Your task to perform on an android device: Open the downloads Image 0: 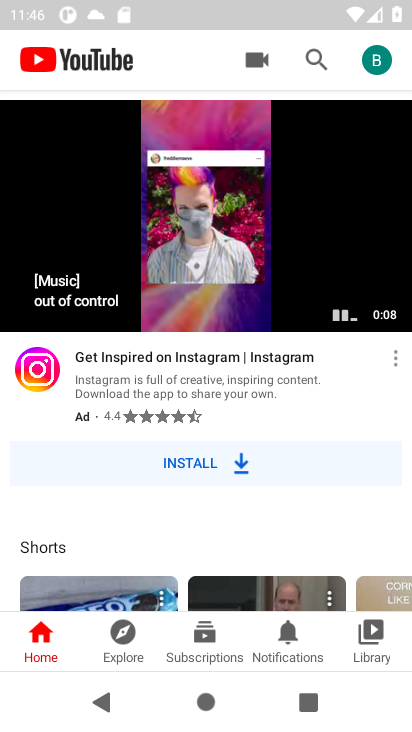
Step 0: press home button
Your task to perform on an android device: Open the downloads Image 1: 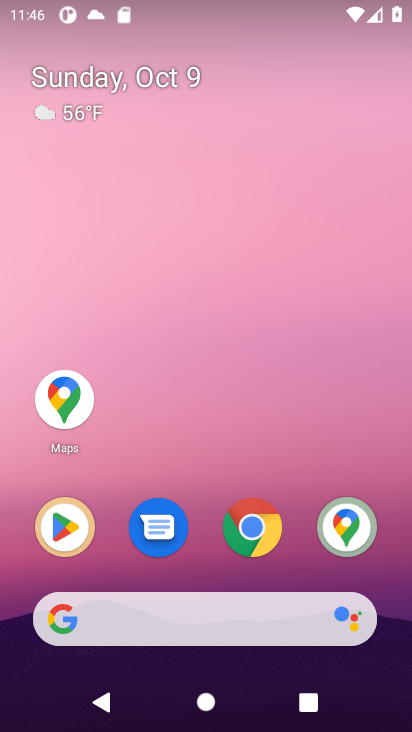
Step 1: drag from (198, 563) to (220, 60)
Your task to perform on an android device: Open the downloads Image 2: 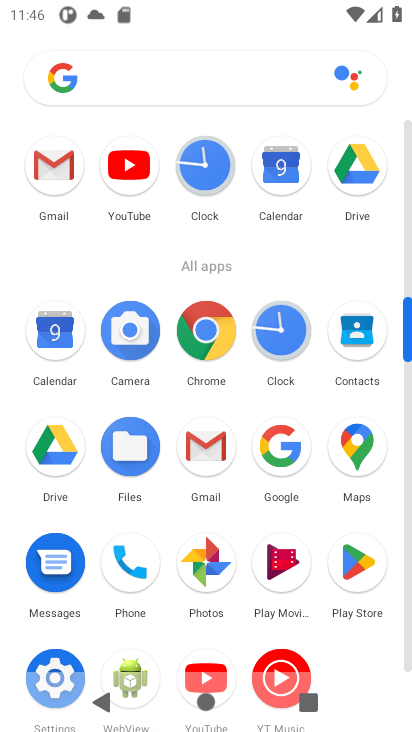
Step 2: click (133, 450)
Your task to perform on an android device: Open the downloads Image 3: 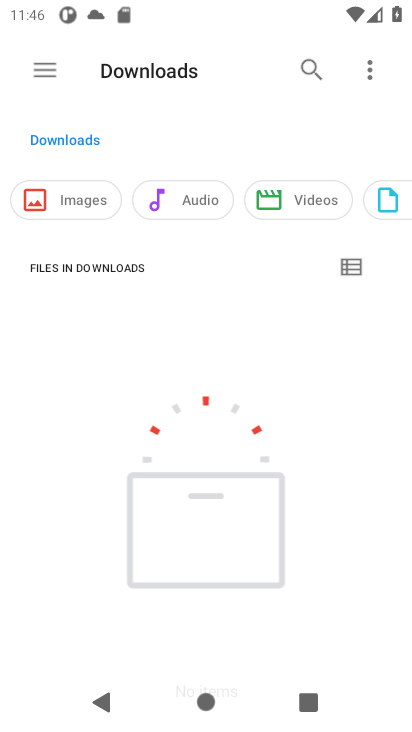
Step 3: task complete